Your task to perform on an android device: stop showing notifications on the lock screen Image 0: 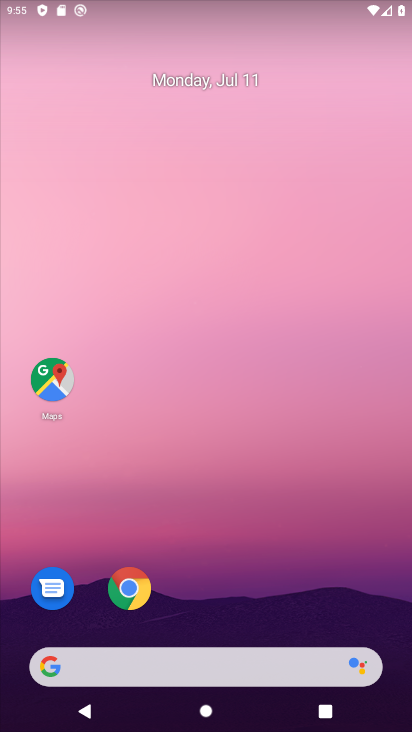
Step 0: drag from (199, 608) to (183, 17)
Your task to perform on an android device: stop showing notifications on the lock screen Image 1: 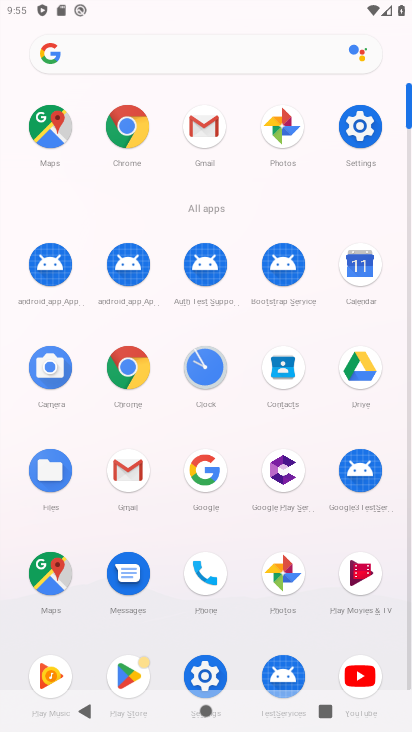
Step 1: click (207, 668)
Your task to perform on an android device: stop showing notifications on the lock screen Image 2: 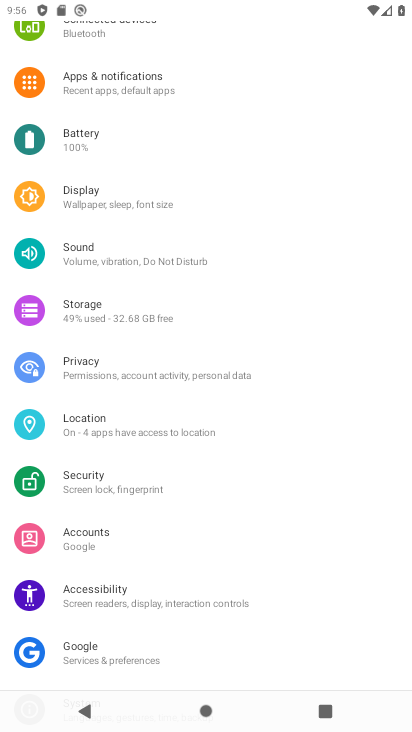
Step 2: click (130, 82)
Your task to perform on an android device: stop showing notifications on the lock screen Image 3: 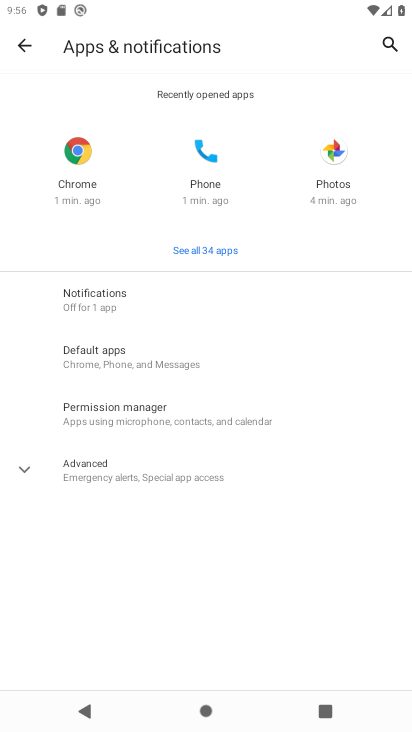
Step 3: click (114, 312)
Your task to perform on an android device: stop showing notifications on the lock screen Image 4: 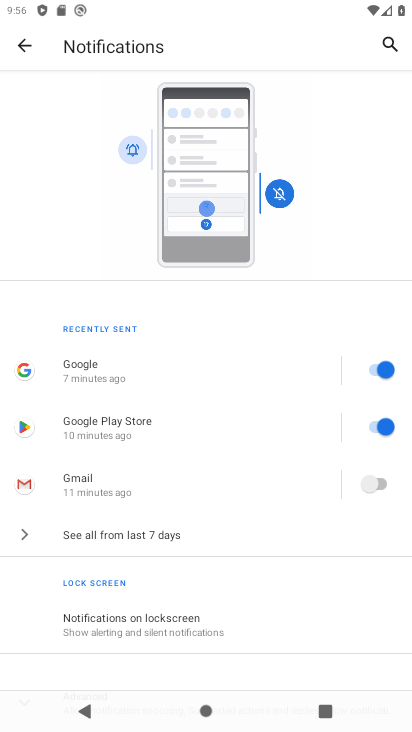
Step 4: click (172, 620)
Your task to perform on an android device: stop showing notifications on the lock screen Image 5: 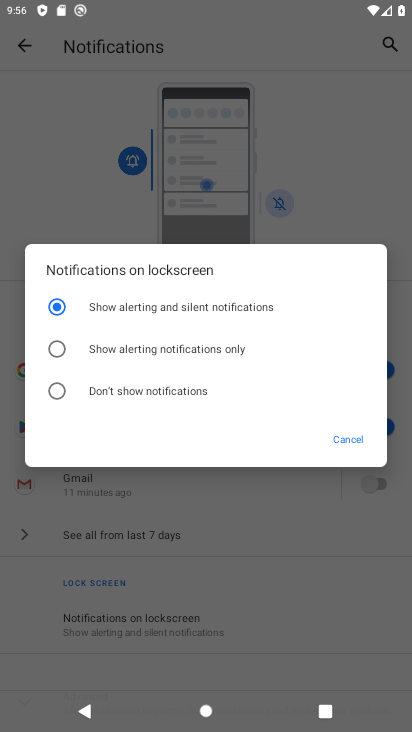
Step 5: click (80, 386)
Your task to perform on an android device: stop showing notifications on the lock screen Image 6: 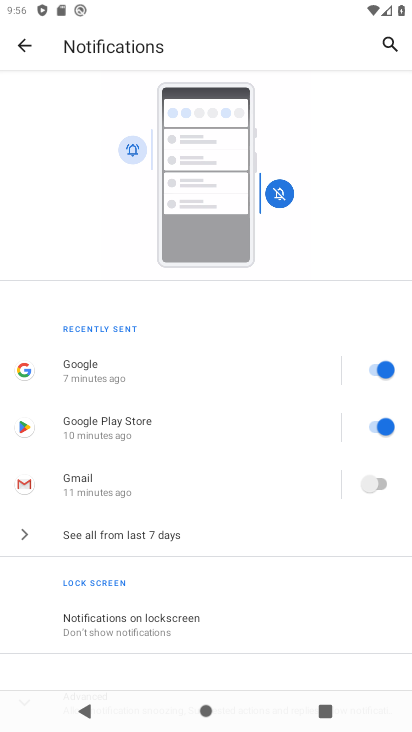
Step 6: task complete